Your task to perform on an android device: What's the news in Malaysia? Image 0: 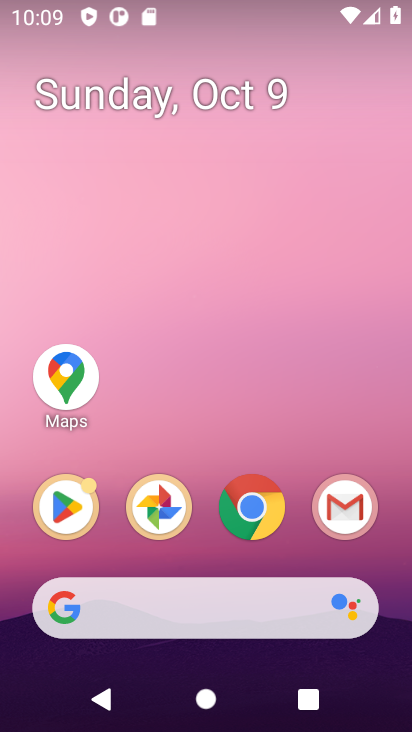
Step 0: drag from (206, 552) to (282, 85)
Your task to perform on an android device: What's the news in Malaysia? Image 1: 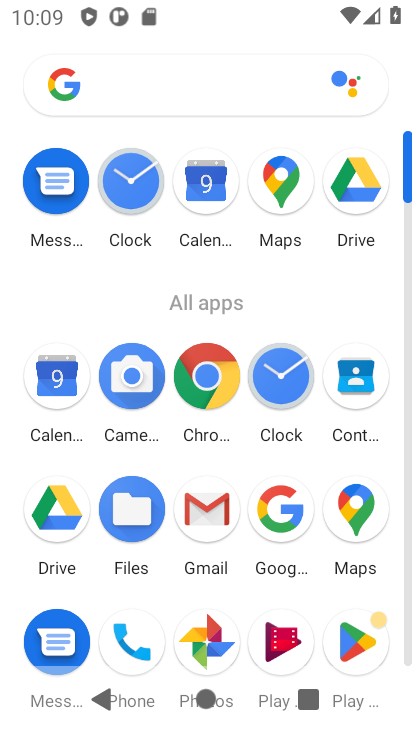
Step 1: click (207, 375)
Your task to perform on an android device: What's the news in Malaysia? Image 2: 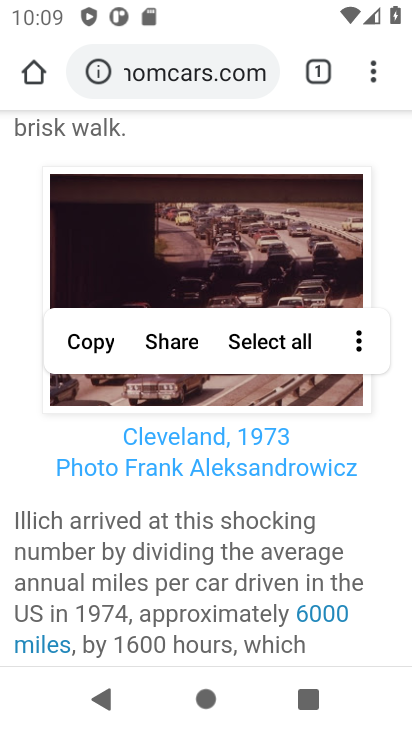
Step 2: click (256, 66)
Your task to perform on an android device: What's the news in Malaysia? Image 3: 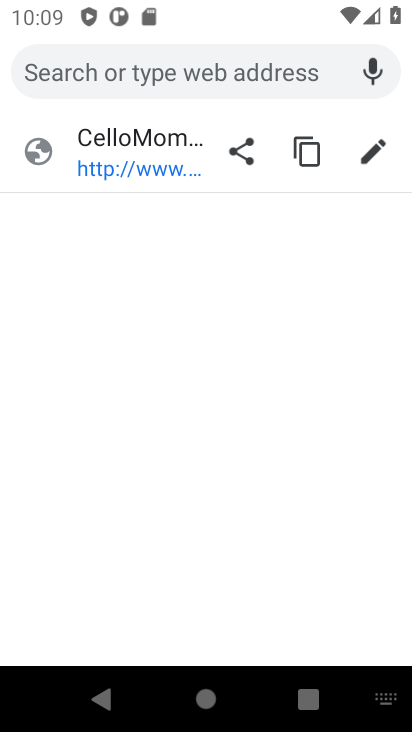
Step 3: type "What's the news in Malaysia?"
Your task to perform on an android device: What's the news in Malaysia? Image 4: 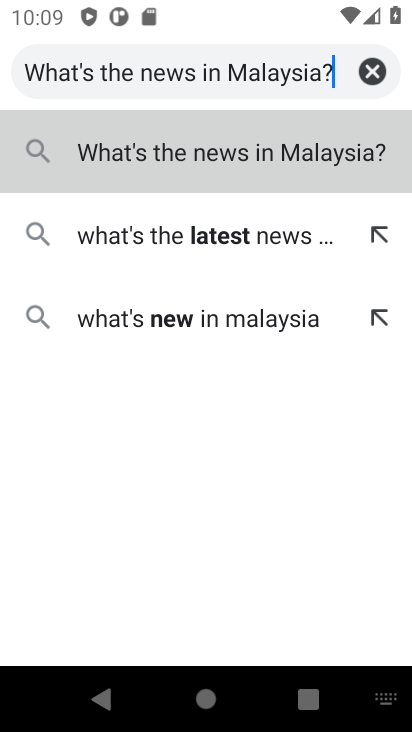
Step 4: press enter
Your task to perform on an android device: What's the news in Malaysia? Image 5: 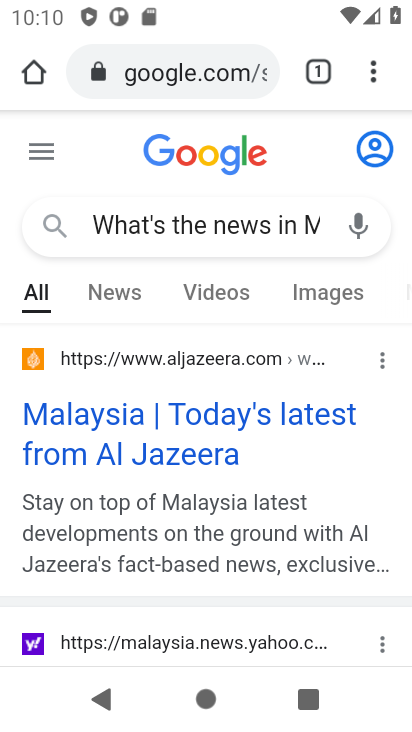
Step 5: click (221, 443)
Your task to perform on an android device: What's the news in Malaysia? Image 6: 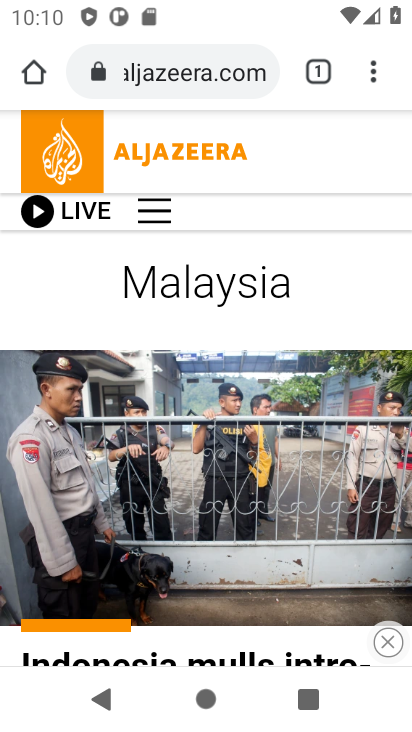
Step 6: task complete